Your task to perform on an android device: turn on improve location accuracy Image 0: 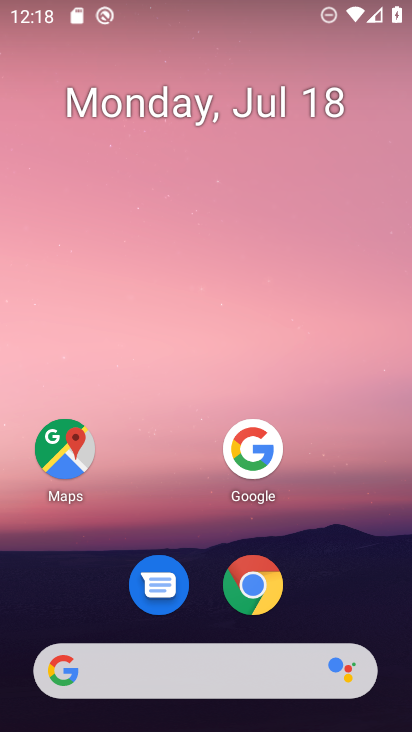
Step 0: drag from (221, 684) to (387, 285)
Your task to perform on an android device: turn on improve location accuracy Image 1: 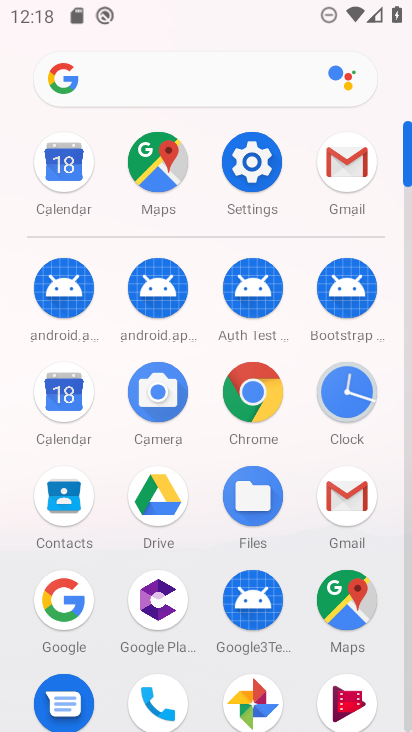
Step 1: click (269, 165)
Your task to perform on an android device: turn on improve location accuracy Image 2: 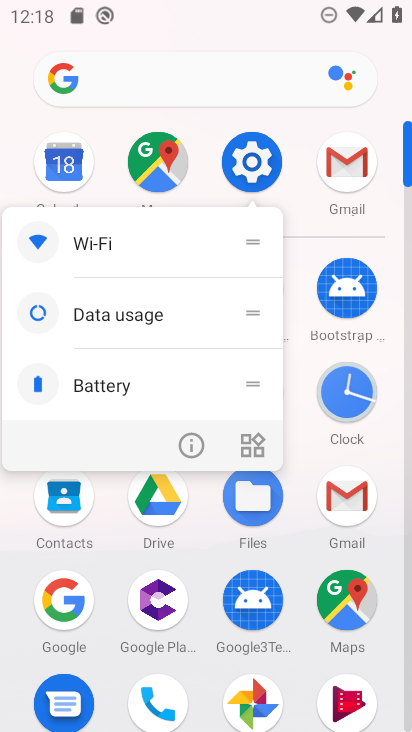
Step 2: click (256, 154)
Your task to perform on an android device: turn on improve location accuracy Image 3: 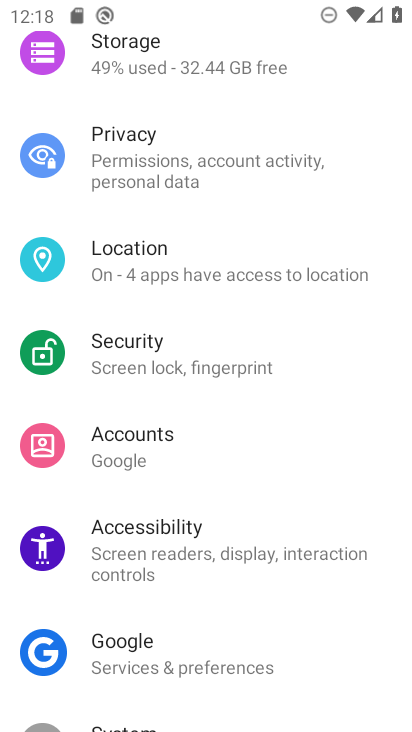
Step 3: click (176, 273)
Your task to perform on an android device: turn on improve location accuracy Image 4: 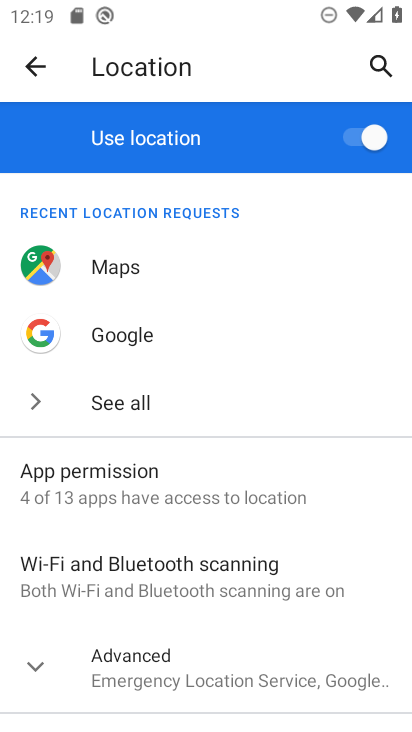
Step 4: click (169, 648)
Your task to perform on an android device: turn on improve location accuracy Image 5: 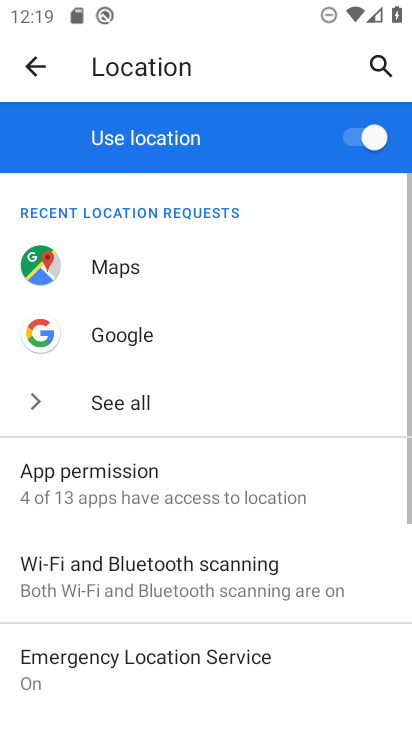
Step 5: drag from (217, 653) to (373, 318)
Your task to perform on an android device: turn on improve location accuracy Image 6: 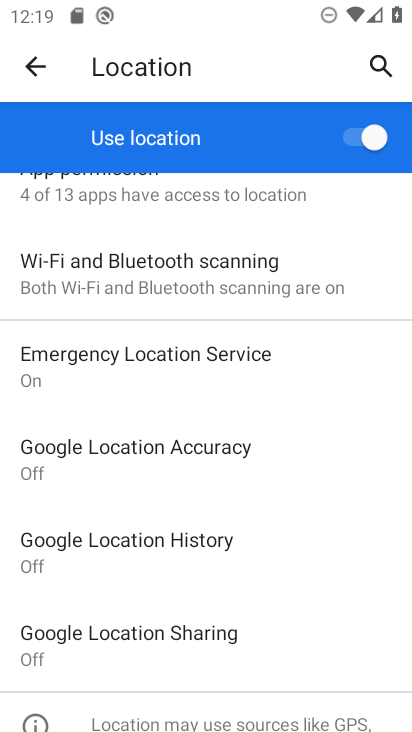
Step 6: click (188, 457)
Your task to perform on an android device: turn on improve location accuracy Image 7: 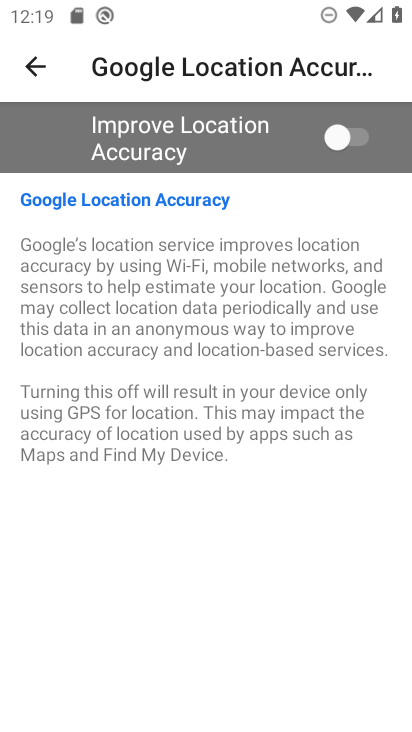
Step 7: click (360, 138)
Your task to perform on an android device: turn on improve location accuracy Image 8: 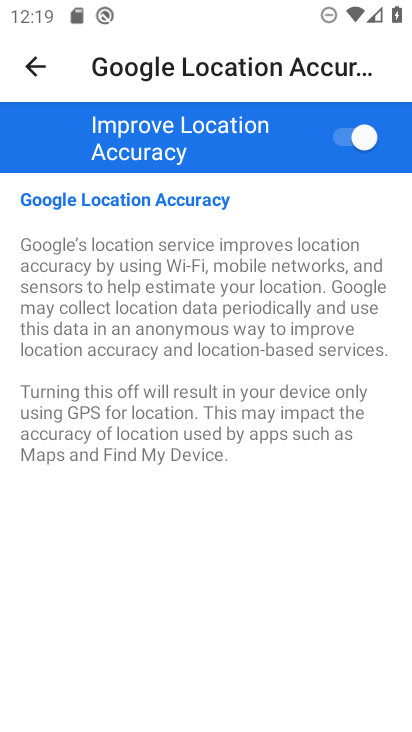
Step 8: task complete